Your task to perform on an android device: Go to Wikipedia Image 0: 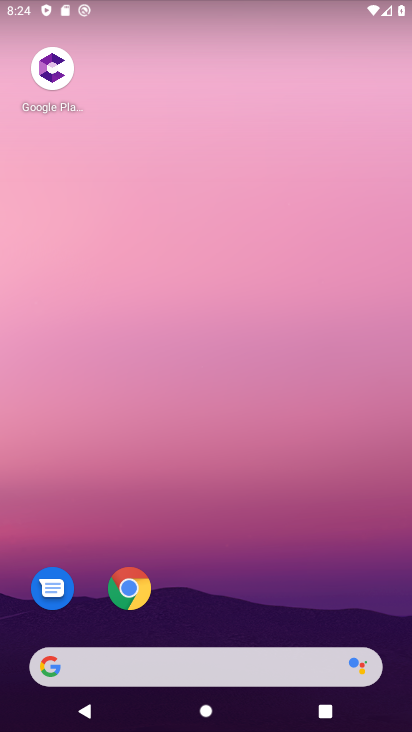
Step 0: drag from (244, 352) to (230, 243)
Your task to perform on an android device: Go to Wikipedia Image 1: 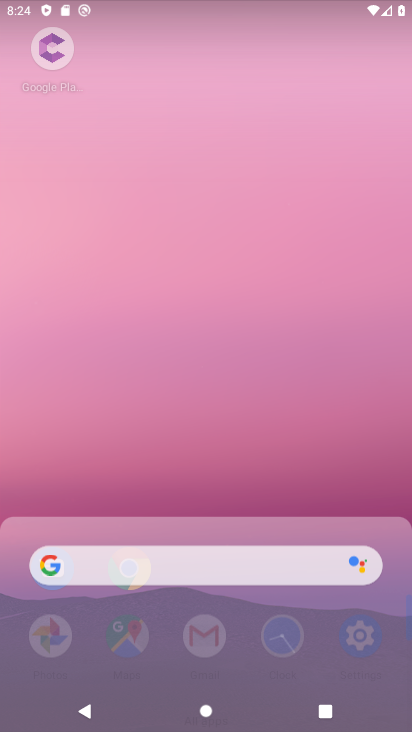
Step 1: drag from (294, 623) to (226, 170)
Your task to perform on an android device: Go to Wikipedia Image 2: 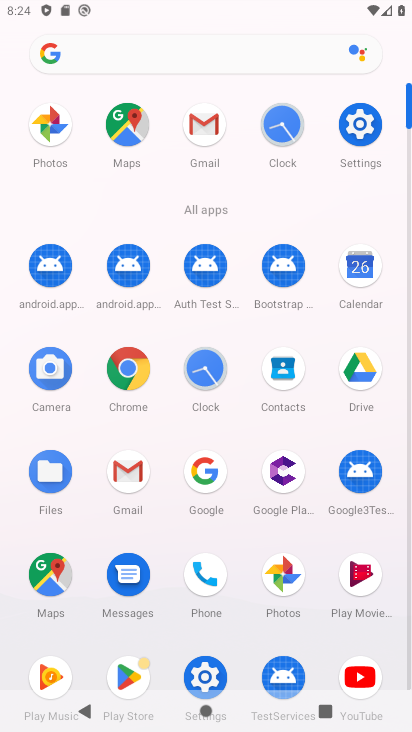
Step 2: click (359, 125)
Your task to perform on an android device: Go to Wikipedia Image 3: 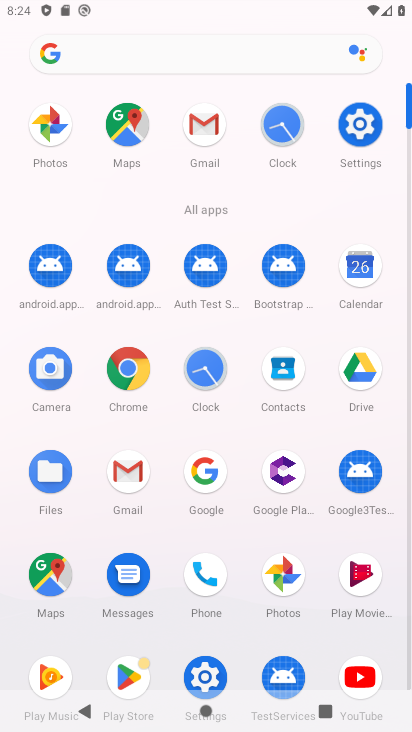
Step 3: click (359, 125)
Your task to perform on an android device: Go to Wikipedia Image 4: 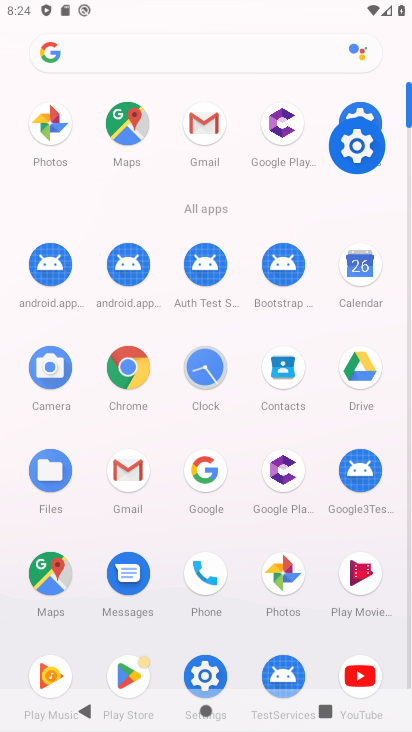
Step 4: click (364, 124)
Your task to perform on an android device: Go to Wikipedia Image 5: 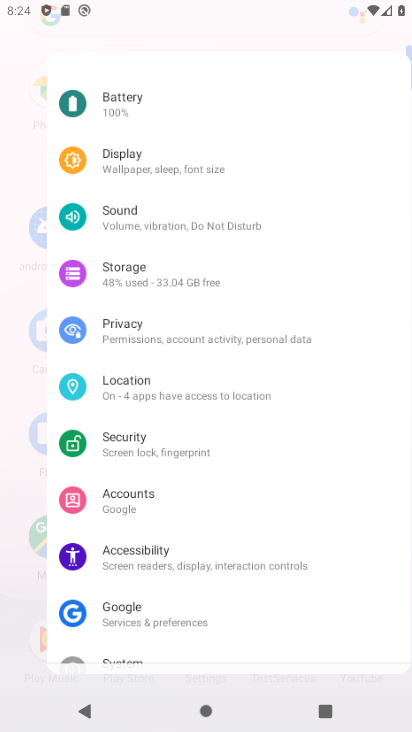
Step 5: click (365, 123)
Your task to perform on an android device: Go to Wikipedia Image 6: 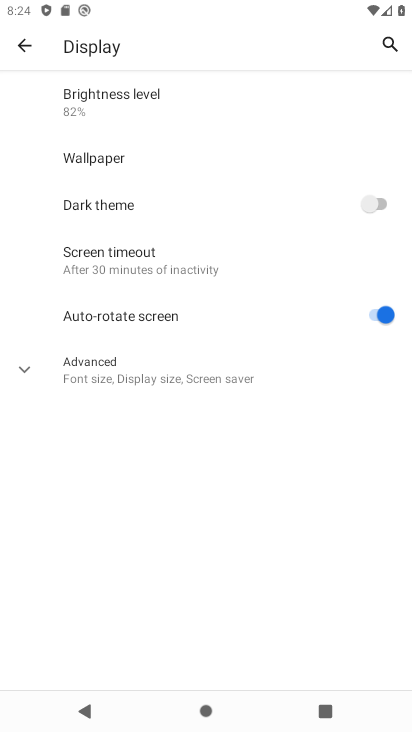
Step 6: click (29, 47)
Your task to perform on an android device: Go to Wikipedia Image 7: 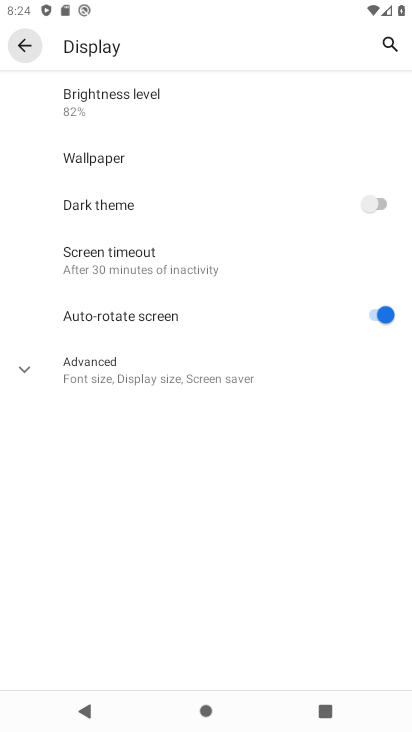
Step 7: click (29, 47)
Your task to perform on an android device: Go to Wikipedia Image 8: 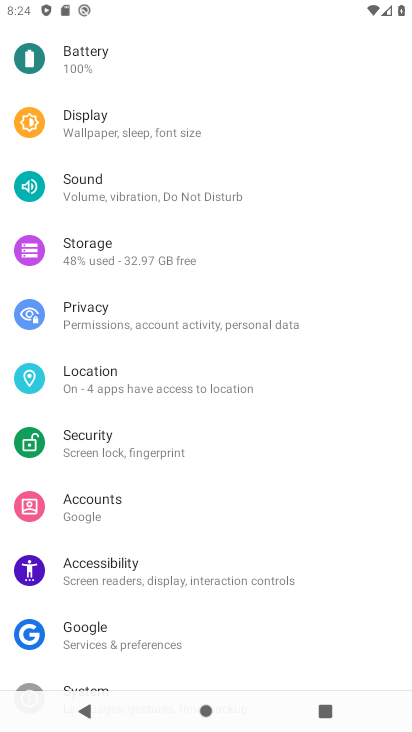
Step 8: press back button
Your task to perform on an android device: Go to Wikipedia Image 9: 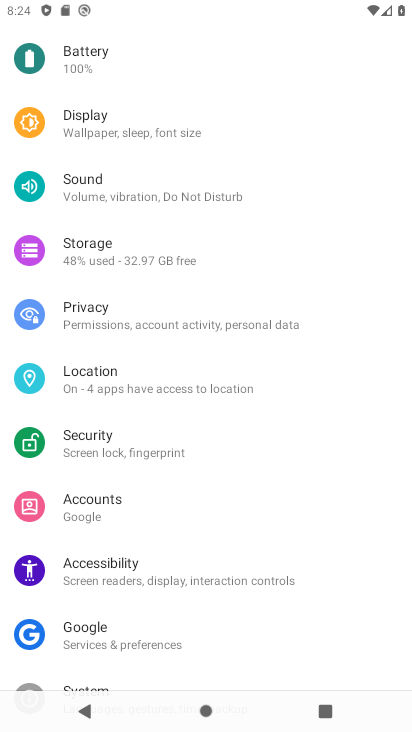
Step 9: press back button
Your task to perform on an android device: Go to Wikipedia Image 10: 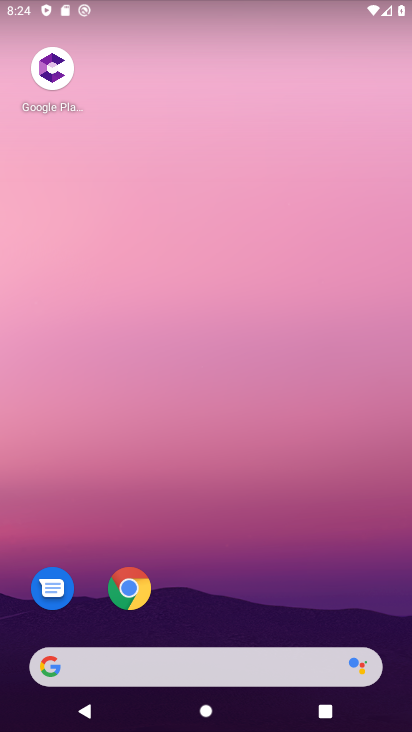
Step 10: drag from (300, 636) to (255, 399)
Your task to perform on an android device: Go to Wikipedia Image 11: 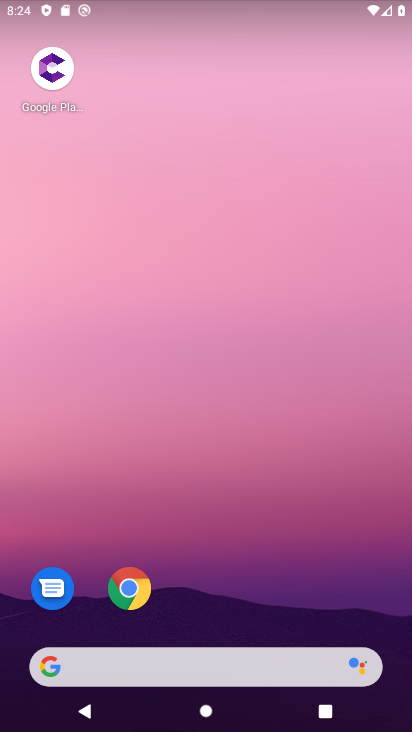
Step 11: drag from (178, 532) to (80, 134)
Your task to perform on an android device: Go to Wikipedia Image 12: 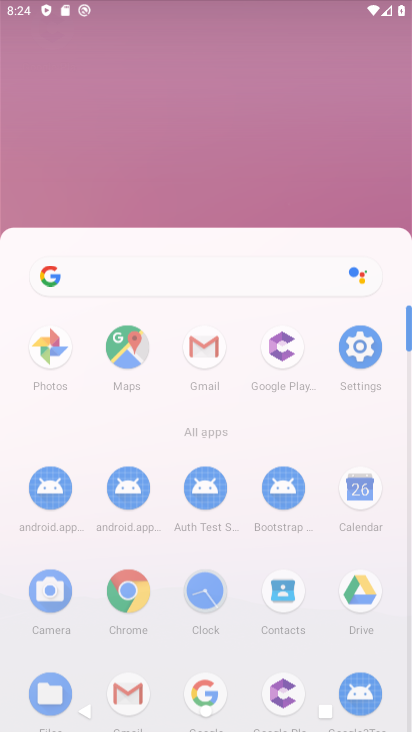
Step 12: click (185, 206)
Your task to perform on an android device: Go to Wikipedia Image 13: 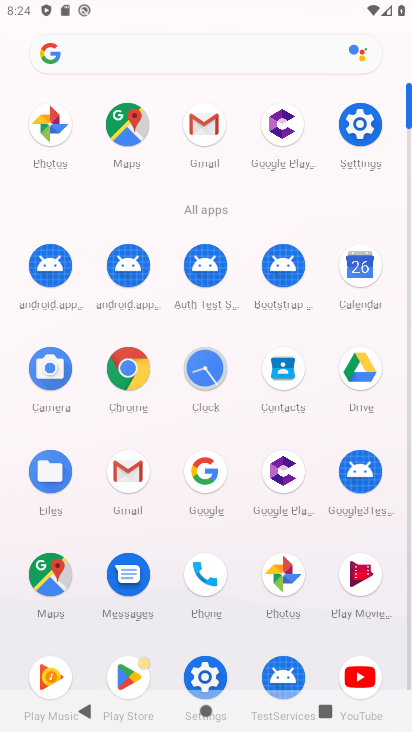
Step 13: click (130, 362)
Your task to perform on an android device: Go to Wikipedia Image 14: 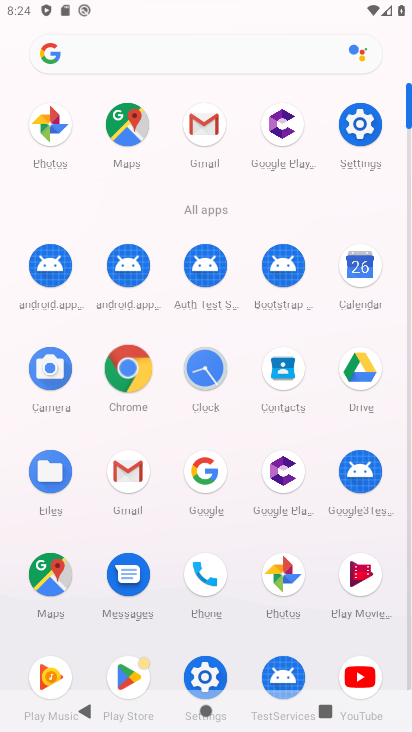
Step 14: click (130, 362)
Your task to perform on an android device: Go to Wikipedia Image 15: 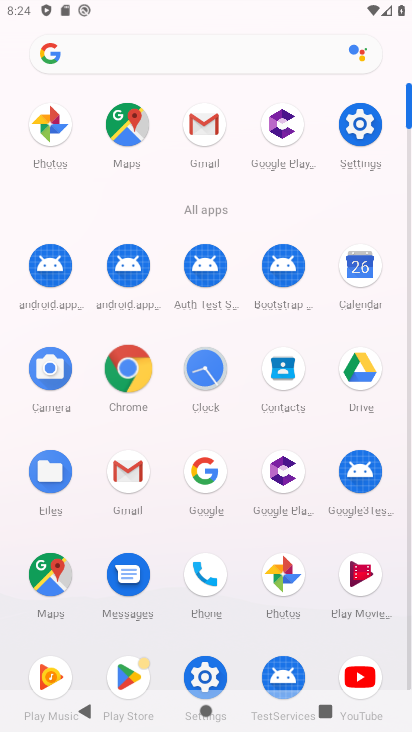
Step 15: click (138, 367)
Your task to perform on an android device: Go to Wikipedia Image 16: 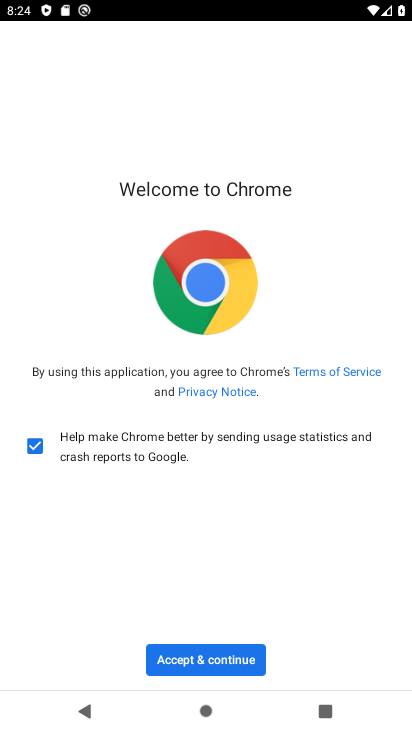
Step 16: click (214, 658)
Your task to perform on an android device: Go to Wikipedia Image 17: 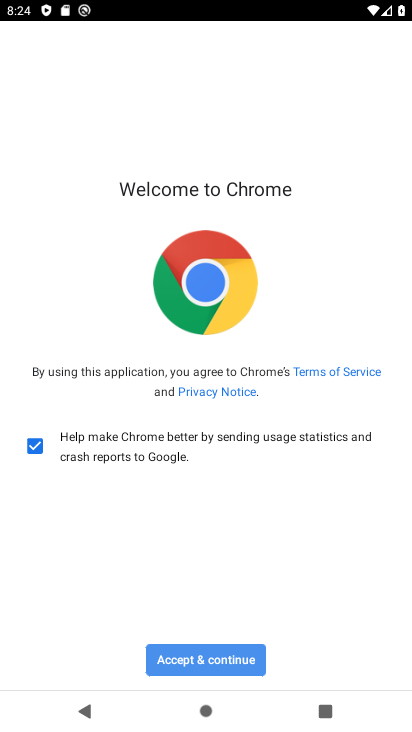
Step 17: click (214, 658)
Your task to perform on an android device: Go to Wikipedia Image 18: 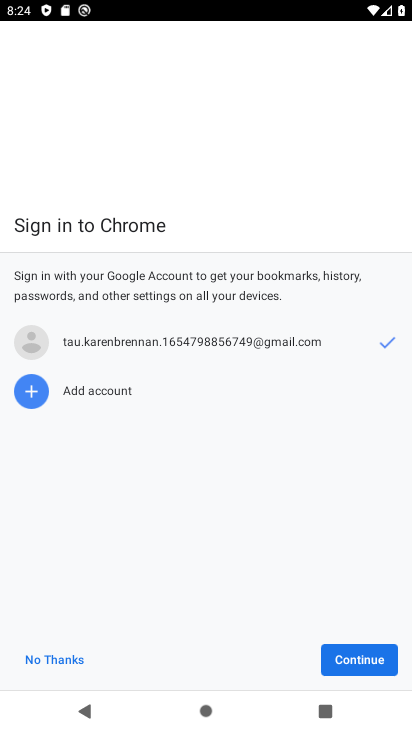
Step 18: click (56, 650)
Your task to perform on an android device: Go to Wikipedia Image 19: 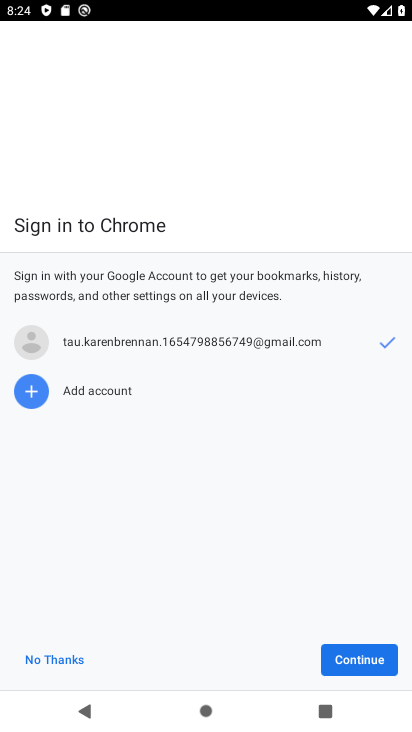
Step 19: click (56, 650)
Your task to perform on an android device: Go to Wikipedia Image 20: 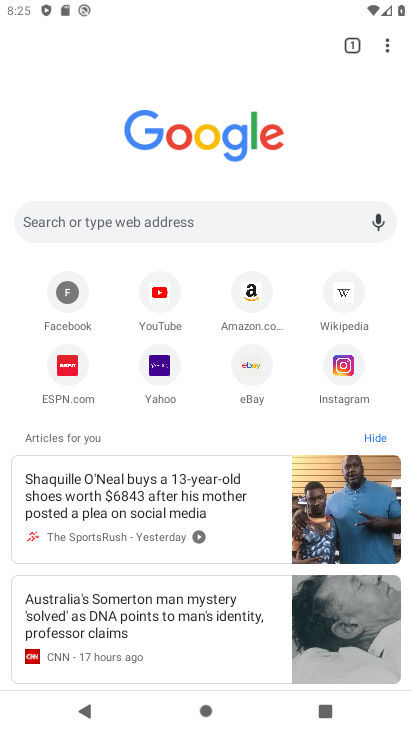
Step 20: click (356, 288)
Your task to perform on an android device: Go to Wikipedia Image 21: 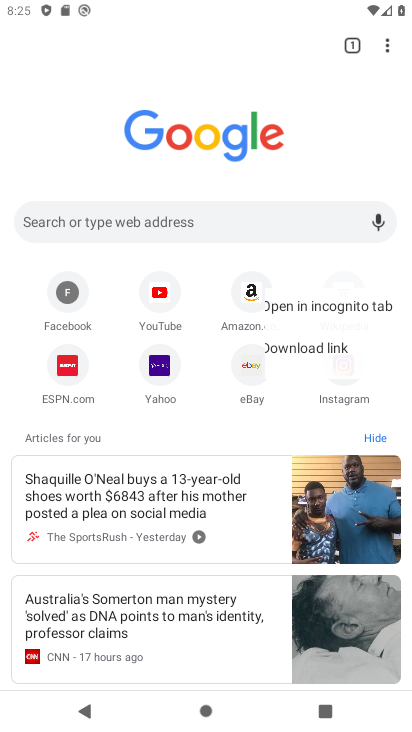
Step 21: click (350, 294)
Your task to perform on an android device: Go to Wikipedia Image 22: 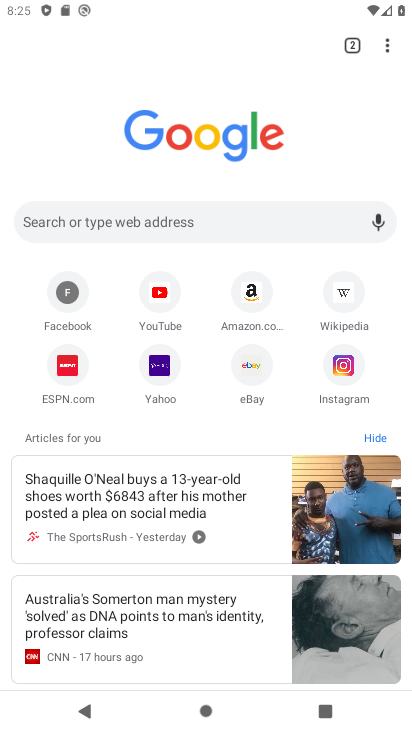
Step 22: click (333, 309)
Your task to perform on an android device: Go to Wikipedia Image 23: 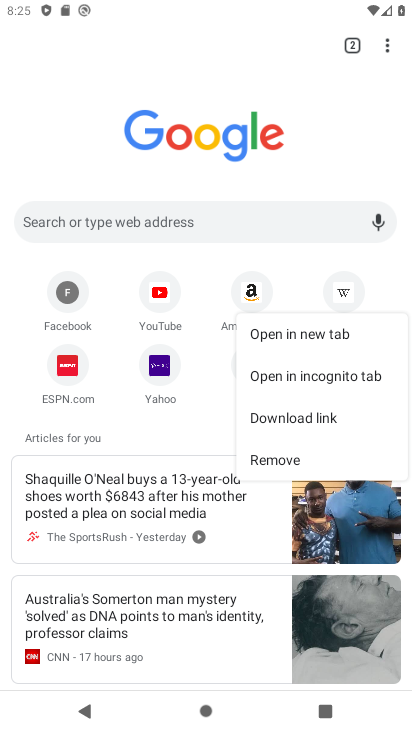
Step 23: click (294, 325)
Your task to perform on an android device: Go to Wikipedia Image 24: 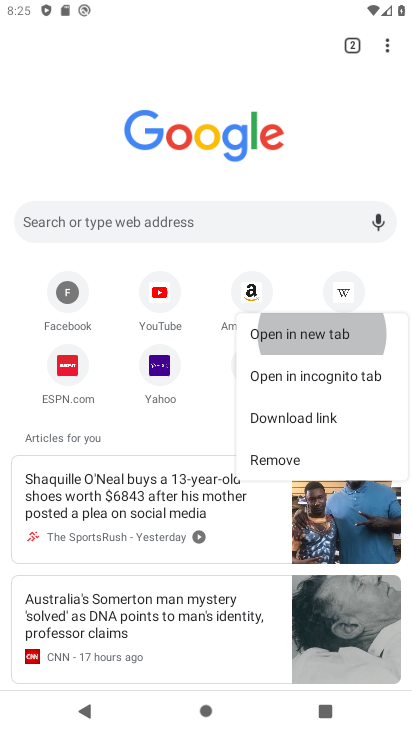
Step 24: click (294, 324)
Your task to perform on an android device: Go to Wikipedia Image 25: 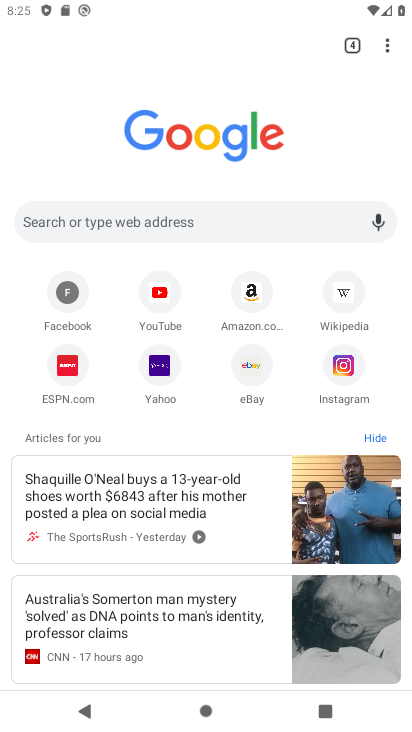
Step 25: task complete